Your task to perform on an android device: see tabs open on other devices in the chrome app Image 0: 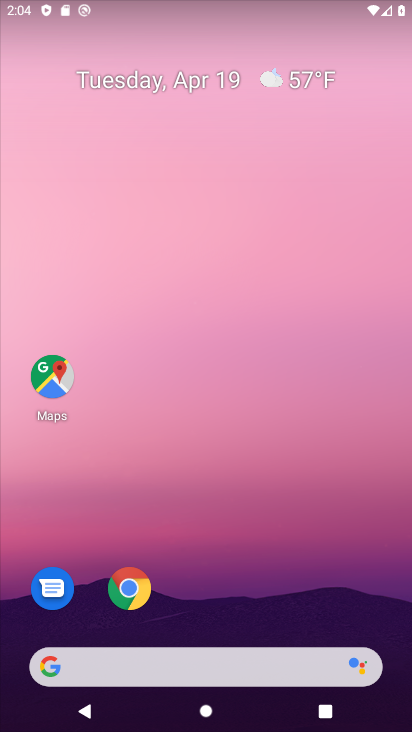
Step 0: click (138, 590)
Your task to perform on an android device: see tabs open on other devices in the chrome app Image 1: 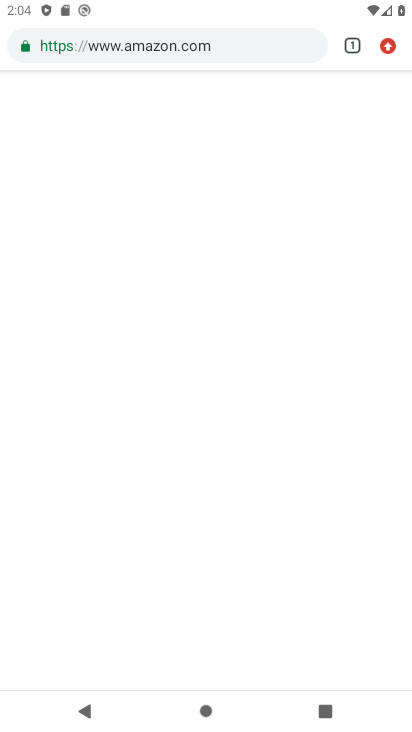
Step 1: click (390, 40)
Your task to perform on an android device: see tabs open on other devices in the chrome app Image 2: 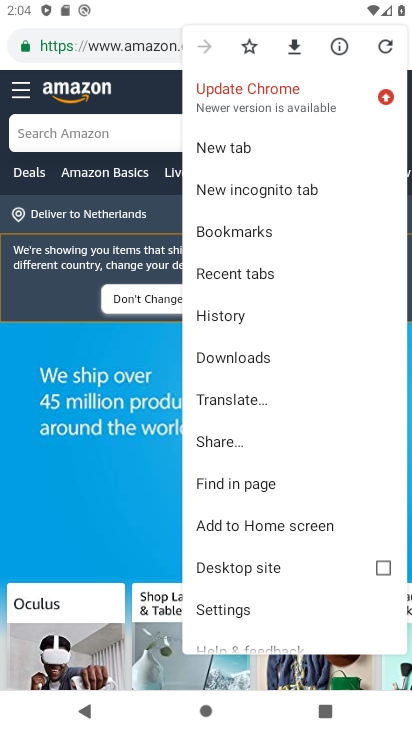
Step 2: click (276, 265)
Your task to perform on an android device: see tabs open on other devices in the chrome app Image 3: 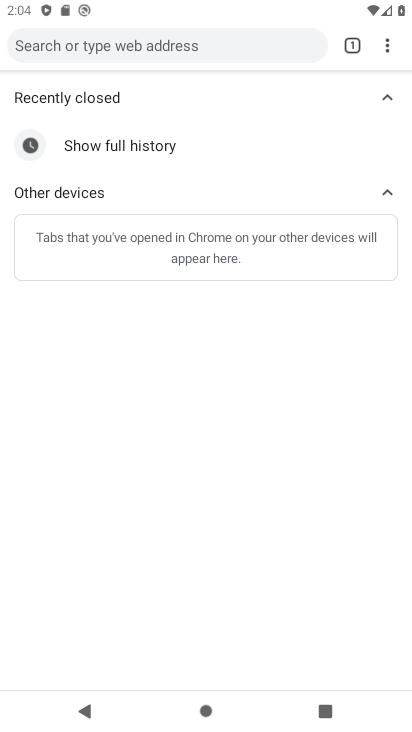
Step 3: task complete